Your task to perform on an android device: Go to settings Image 0: 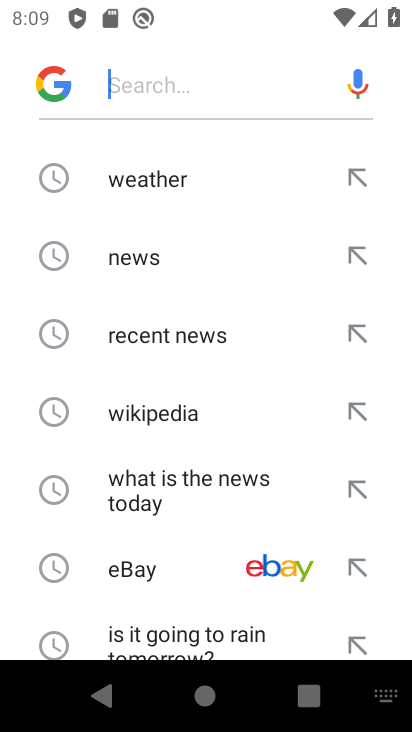
Step 0: press home button
Your task to perform on an android device: Go to settings Image 1: 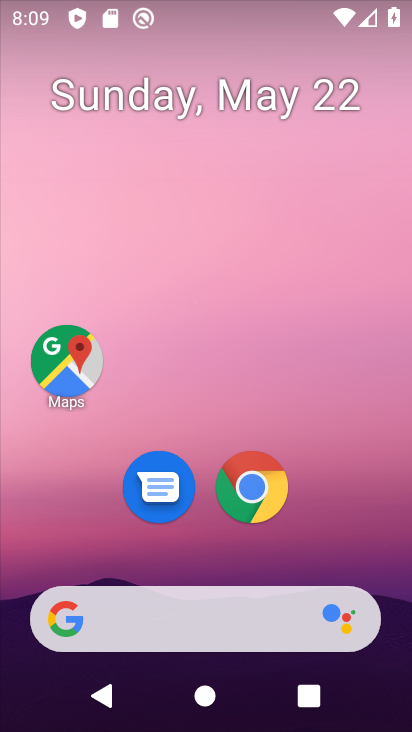
Step 1: drag from (380, 548) to (298, 86)
Your task to perform on an android device: Go to settings Image 2: 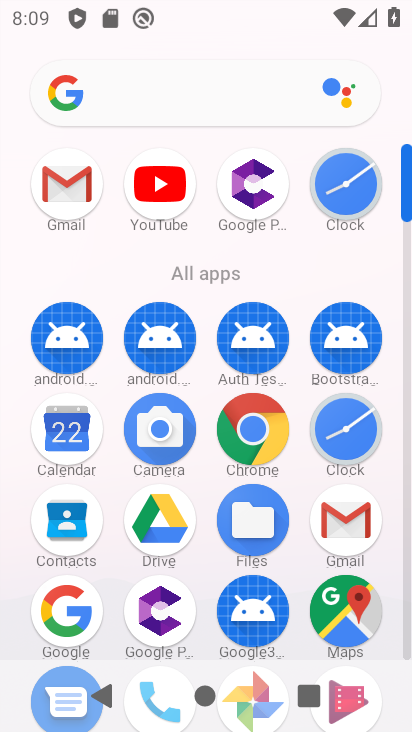
Step 2: drag from (396, 595) to (289, 206)
Your task to perform on an android device: Go to settings Image 3: 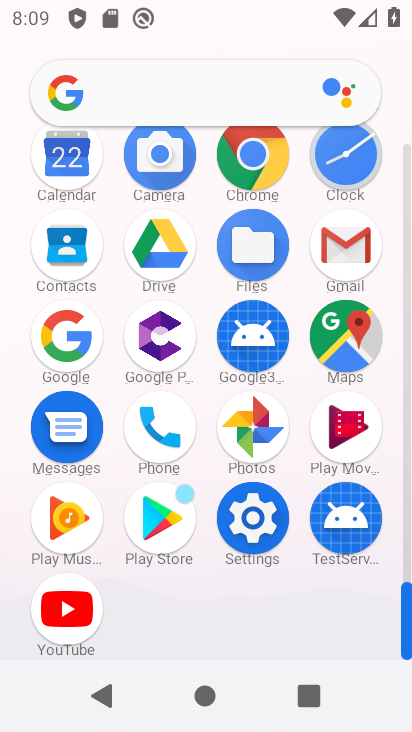
Step 3: click (258, 536)
Your task to perform on an android device: Go to settings Image 4: 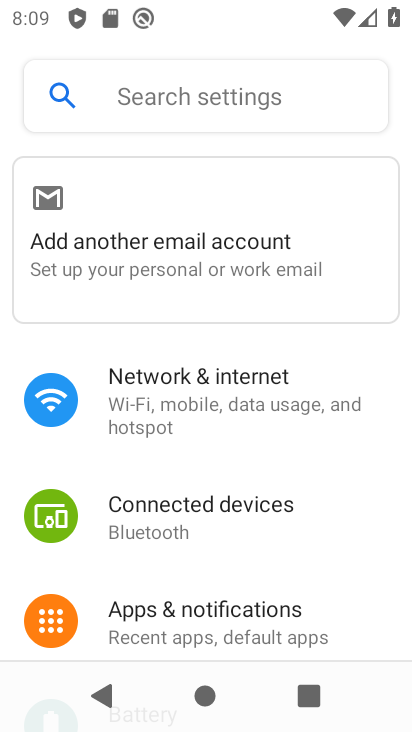
Step 4: task complete